Your task to perform on an android device: Open the phone app and click the voicemail tab. Image 0: 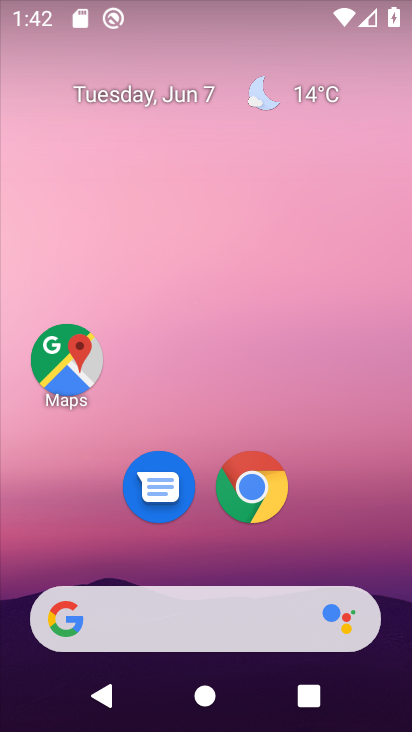
Step 0: drag from (215, 565) to (383, 436)
Your task to perform on an android device: Open the phone app and click the voicemail tab. Image 1: 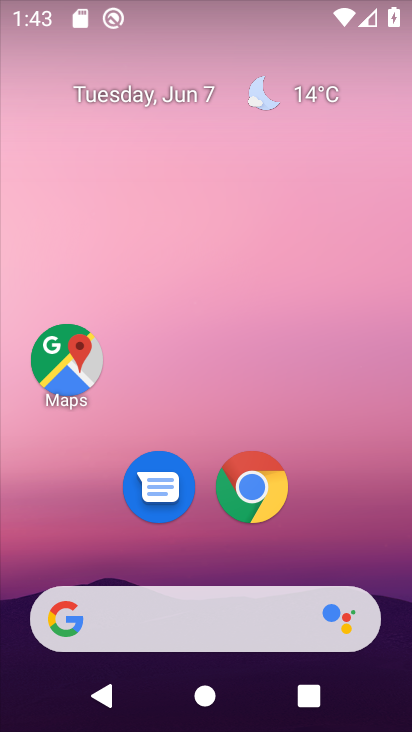
Step 1: drag from (196, 579) to (197, 43)
Your task to perform on an android device: Open the phone app and click the voicemail tab. Image 2: 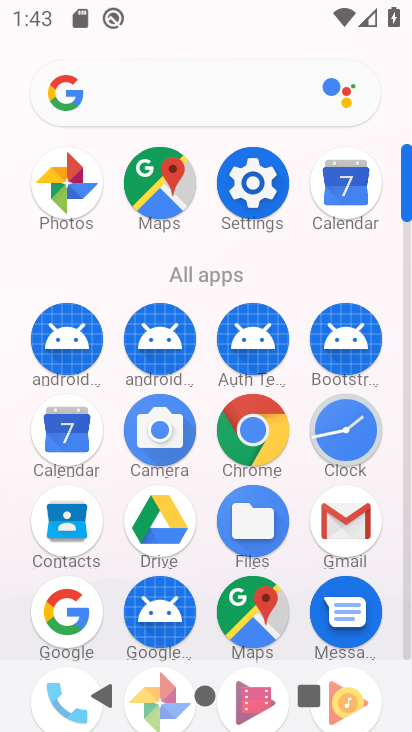
Step 2: drag from (112, 576) to (75, 235)
Your task to perform on an android device: Open the phone app and click the voicemail tab. Image 3: 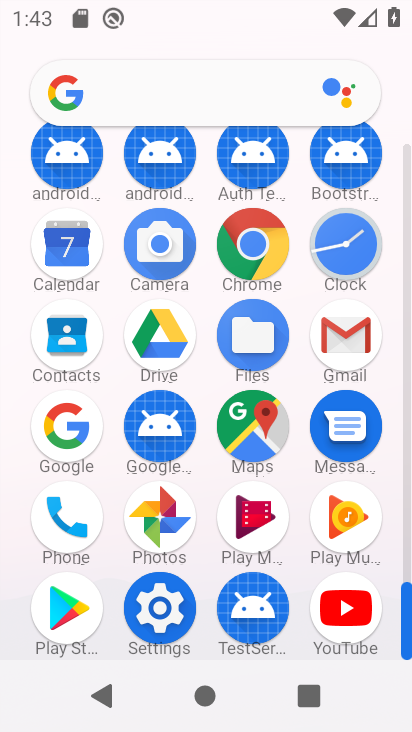
Step 3: click (63, 538)
Your task to perform on an android device: Open the phone app and click the voicemail tab. Image 4: 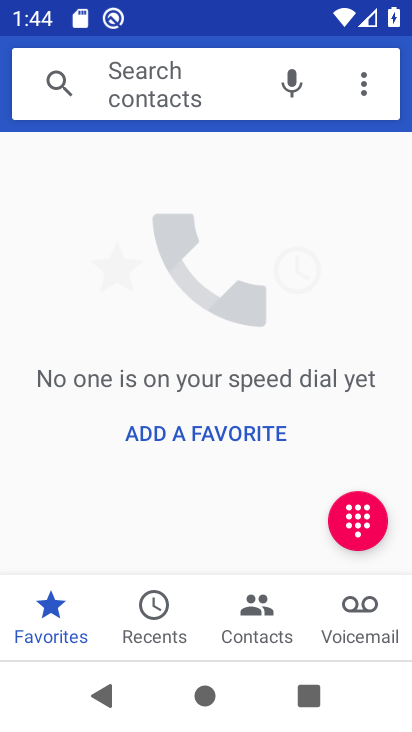
Step 4: click (343, 609)
Your task to perform on an android device: Open the phone app and click the voicemail tab. Image 5: 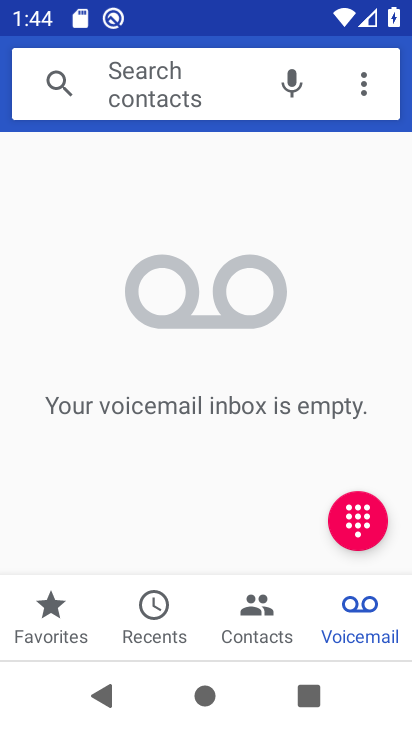
Step 5: task complete